Your task to perform on an android device: Open Chrome and go to settings Image 0: 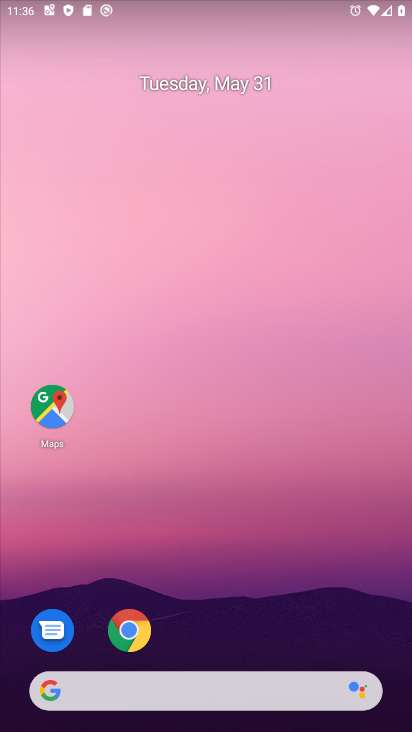
Step 0: click (139, 631)
Your task to perform on an android device: Open Chrome and go to settings Image 1: 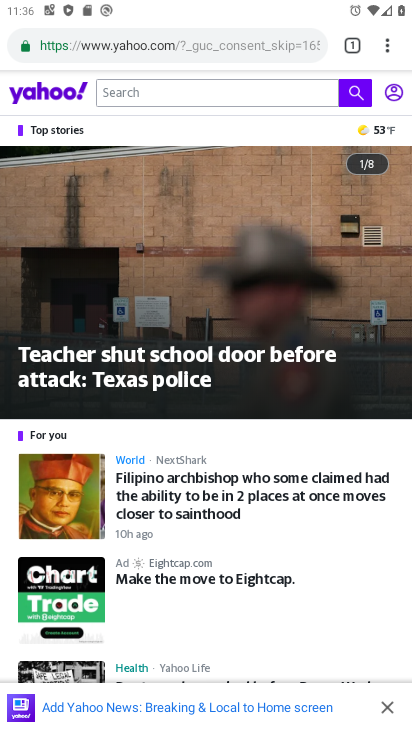
Step 1: click (390, 49)
Your task to perform on an android device: Open Chrome and go to settings Image 2: 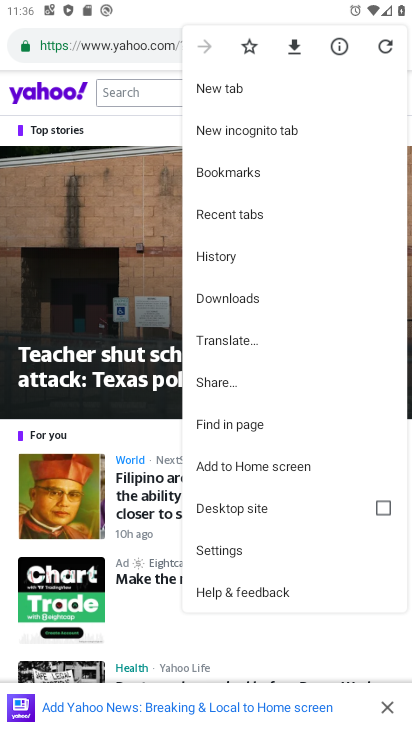
Step 2: click (224, 553)
Your task to perform on an android device: Open Chrome and go to settings Image 3: 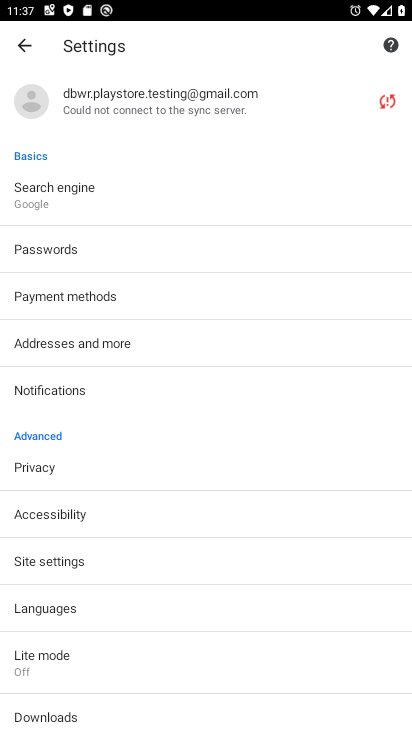
Step 3: task complete